Your task to perform on an android device: open chrome privacy settings Image 0: 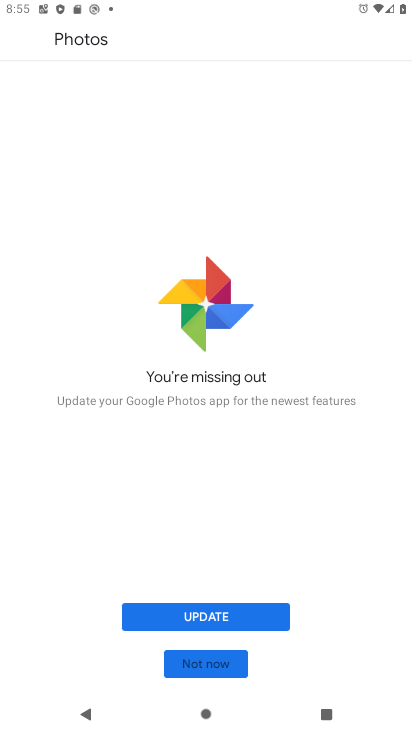
Step 0: press home button
Your task to perform on an android device: open chrome privacy settings Image 1: 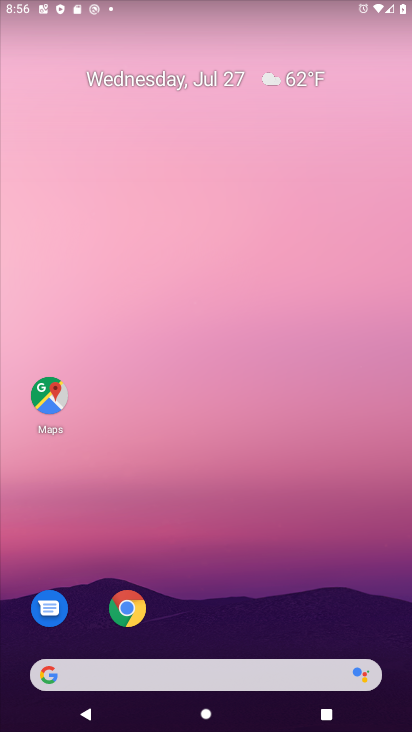
Step 1: drag from (251, 521) to (239, 179)
Your task to perform on an android device: open chrome privacy settings Image 2: 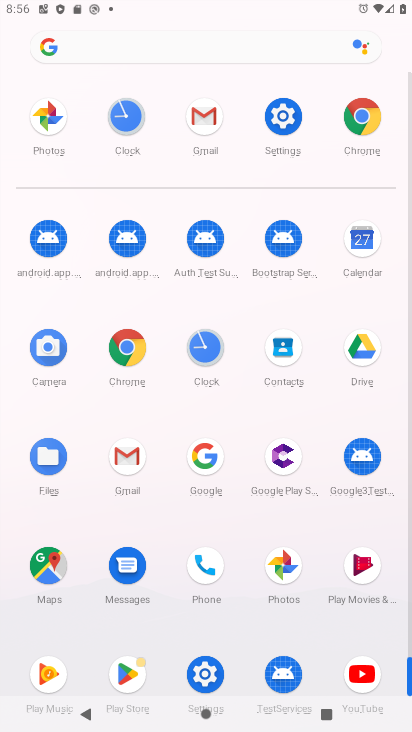
Step 2: click (283, 115)
Your task to perform on an android device: open chrome privacy settings Image 3: 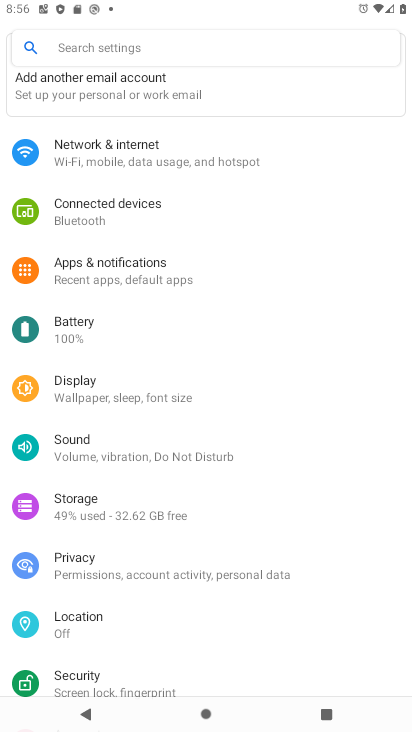
Step 3: click (71, 569)
Your task to perform on an android device: open chrome privacy settings Image 4: 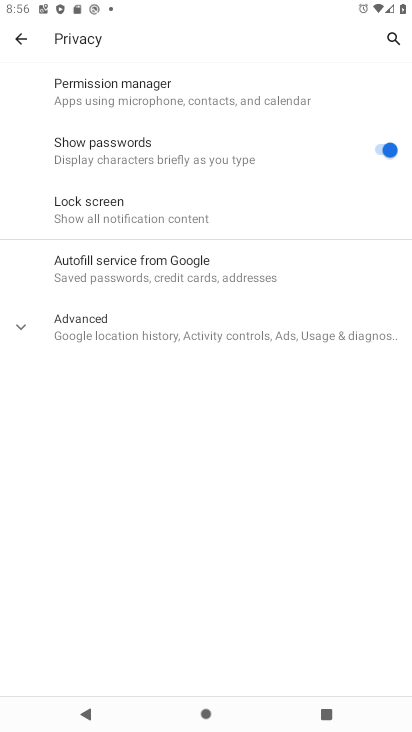
Step 4: task complete